Your task to perform on an android device: delete location history Image 0: 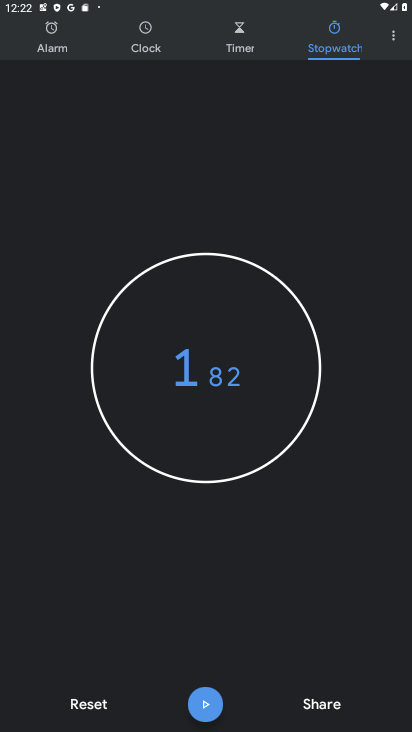
Step 0: press home button
Your task to perform on an android device: delete location history Image 1: 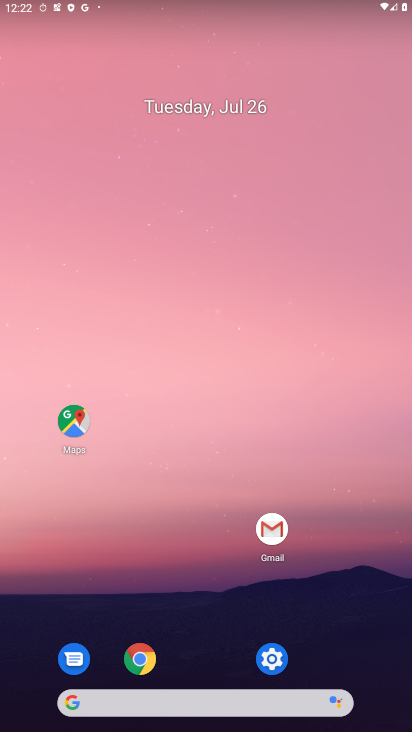
Step 1: click (293, 657)
Your task to perform on an android device: delete location history Image 2: 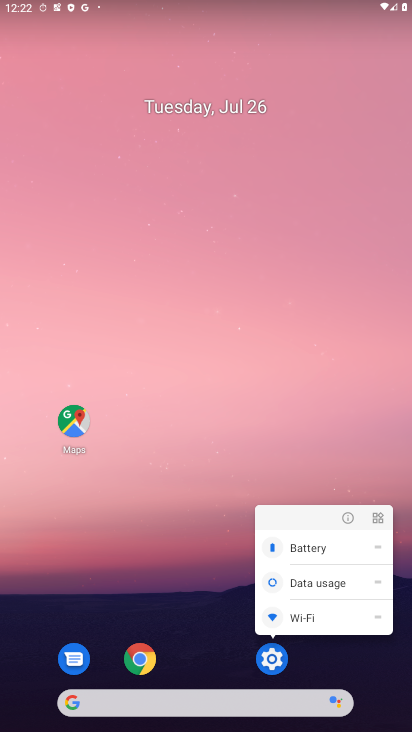
Step 2: click (269, 670)
Your task to perform on an android device: delete location history Image 3: 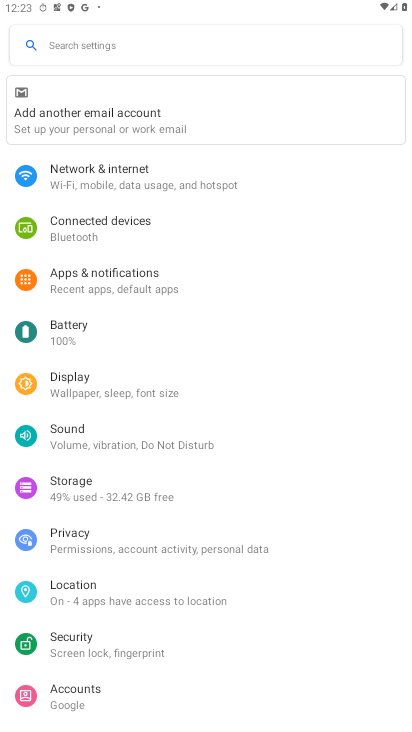
Step 3: click (78, 593)
Your task to perform on an android device: delete location history Image 4: 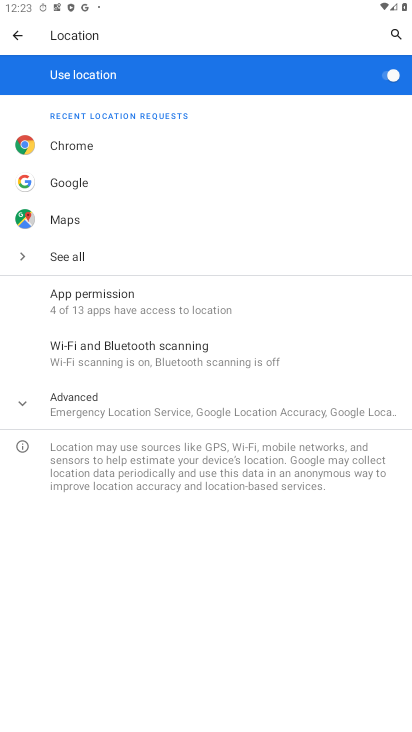
Step 4: click (49, 398)
Your task to perform on an android device: delete location history Image 5: 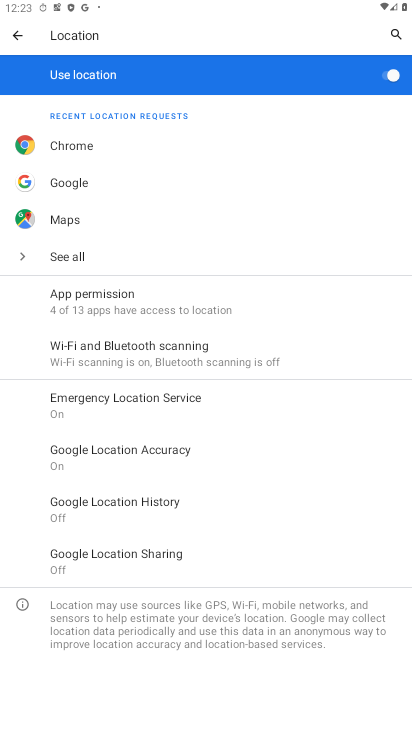
Step 5: click (108, 497)
Your task to perform on an android device: delete location history Image 6: 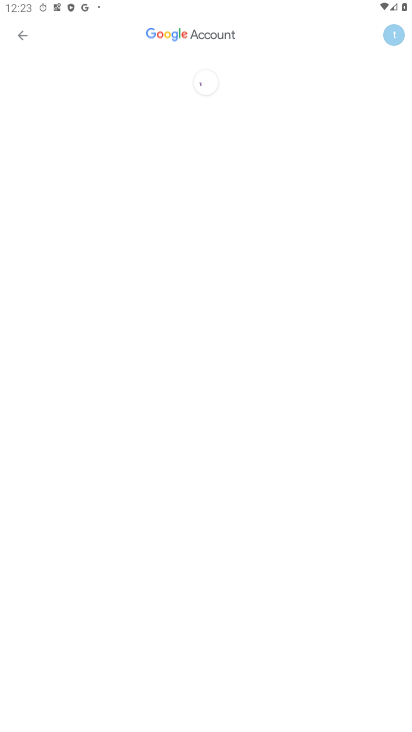
Step 6: drag from (219, 520) to (257, 165)
Your task to perform on an android device: delete location history Image 7: 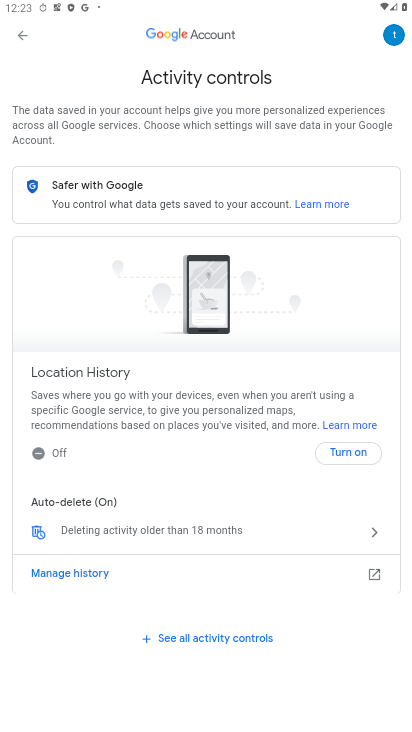
Step 7: click (144, 527)
Your task to perform on an android device: delete location history Image 8: 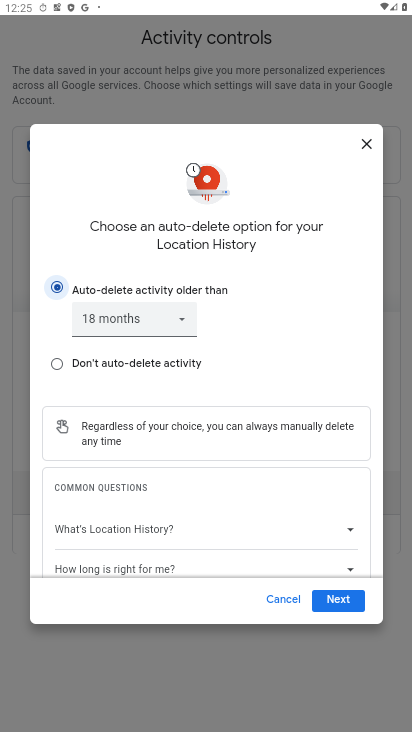
Step 8: task complete